Your task to perform on an android device: Search for Mexican restaurants on Maps Image 0: 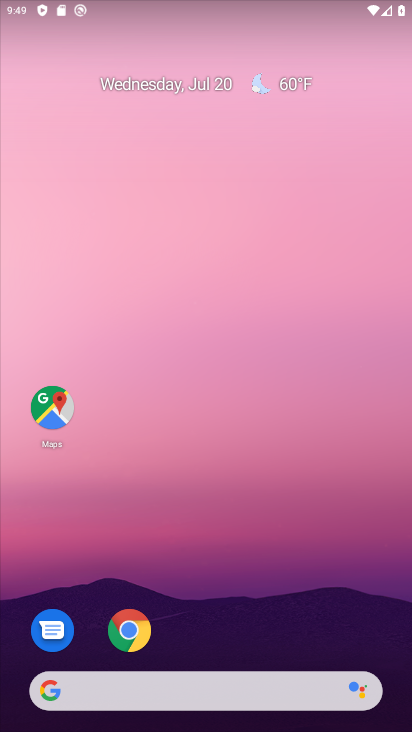
Step 0: drag from (204, 653) to (234, 243)
Your task to perform on an android device: Search for Mexican restaurants on Maps Image 1: 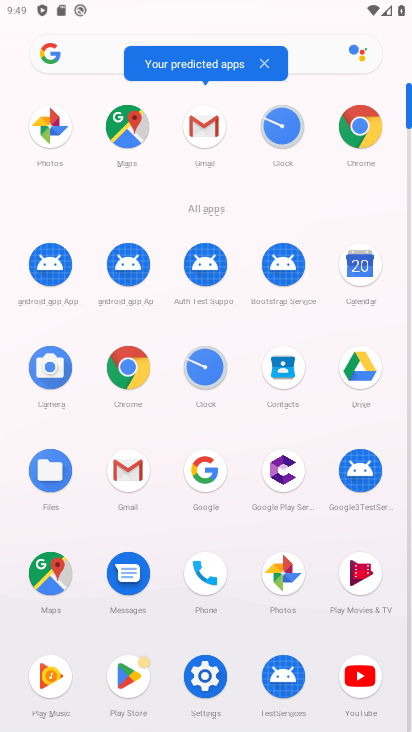
Step 1: click (51, 575)
Your task to perform on an android device: Search for Mexican restaurants on Maps Image 2: 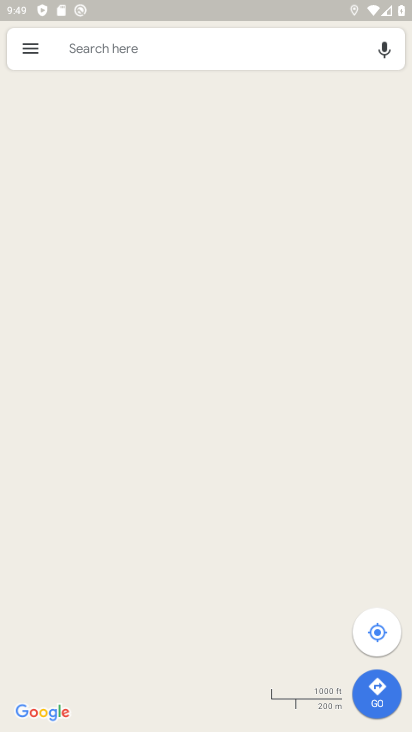
Step 2: click (183, 44)
Your task to perform on an android device: Search for Mexican restaurants on Maps Image 3: 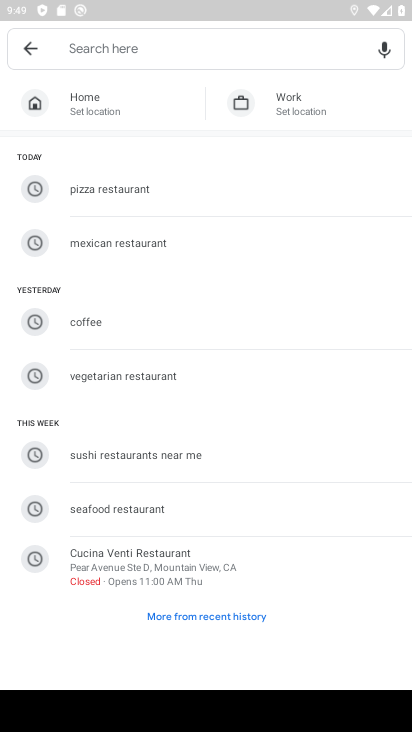
Step 3: click (145, 234)
Your task to perform on an android device: Search for Mexican restaurants on Maps Image 4: 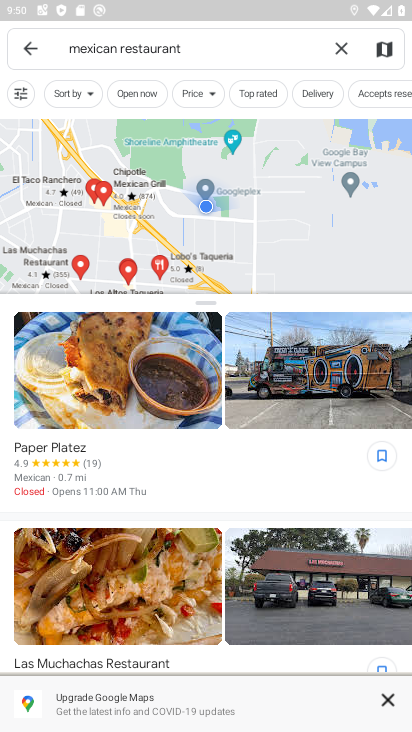
Step 4: task complete